Your task to perform on an android device: Open my contact list Image 0: 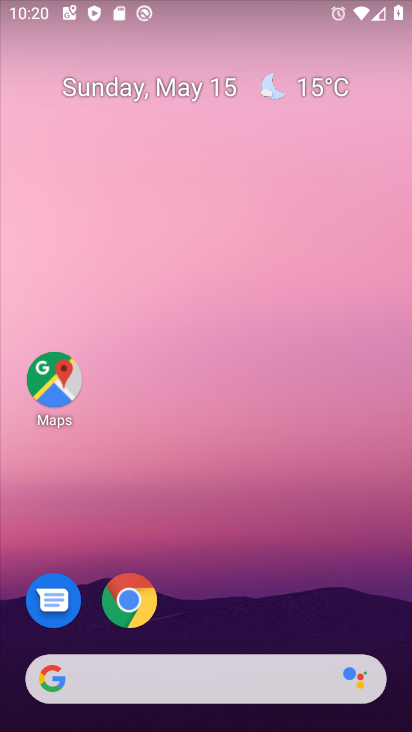
Step 0: drag from (388, 625) to (404, 72)
Your task to perform on an android device: Open my contact list Image 1: 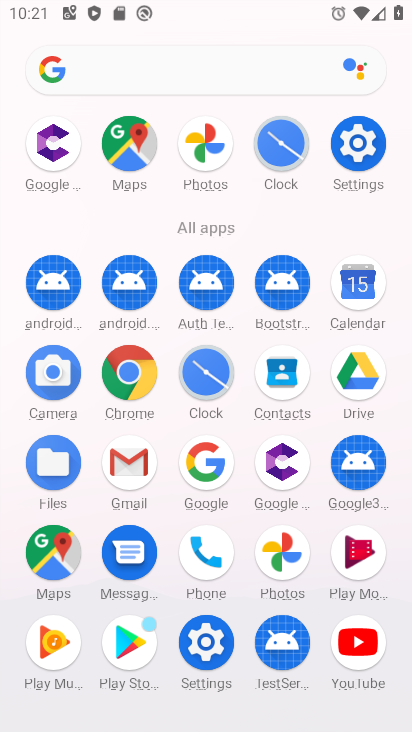
Step 1: click (295, 382)
Your task to perform on an android device: Open my contact list Image 2: 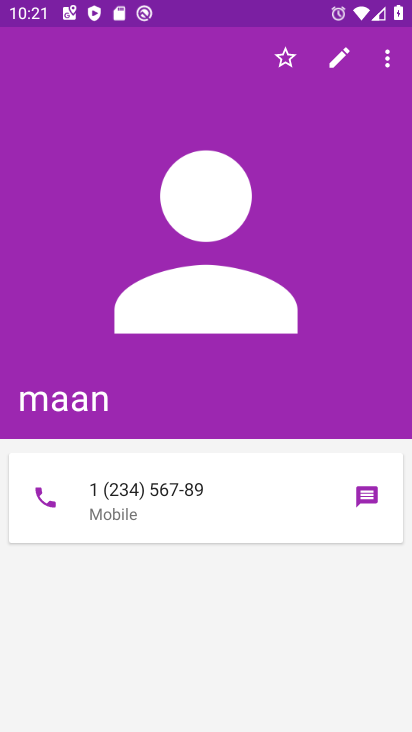
Step 2: task complete